Your task to perform on an android device: Go to Yahoo.com Image 0: 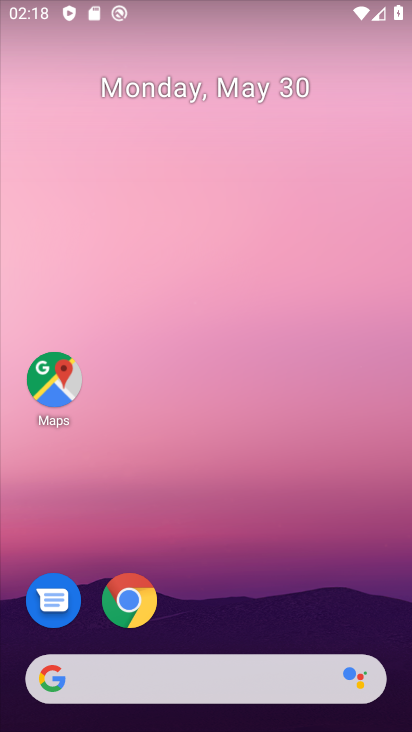
Step 0: click (124, 602)
Your task to perform on an android device: Go to Yahoo.com Image 1: 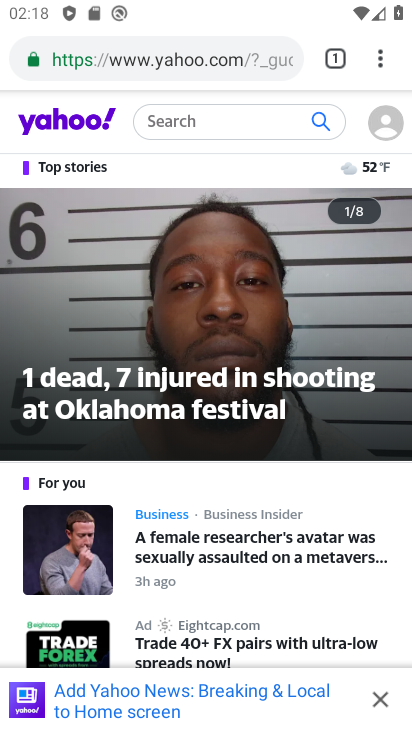
Step 1: task complete